Your task to perform on an android device: allow notifications from all sites in the chrome app Image 0: 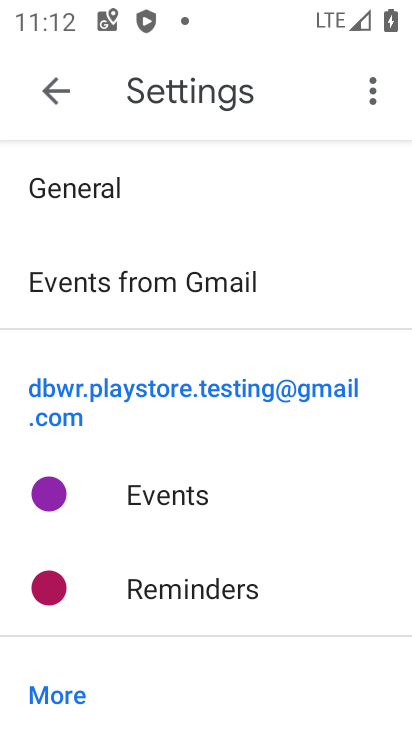
Step 0: press home button
Your task to perform on an android device: allow notifications from all sites in the chrome app Image 1: 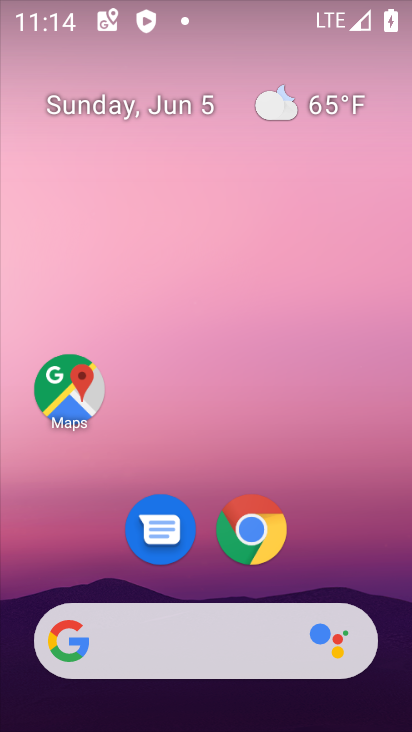
Step 1: drag from (259, 709) to (319, 56)
Your task to perform on an android device: allow notifications from all sites in the chrome app Image 2: 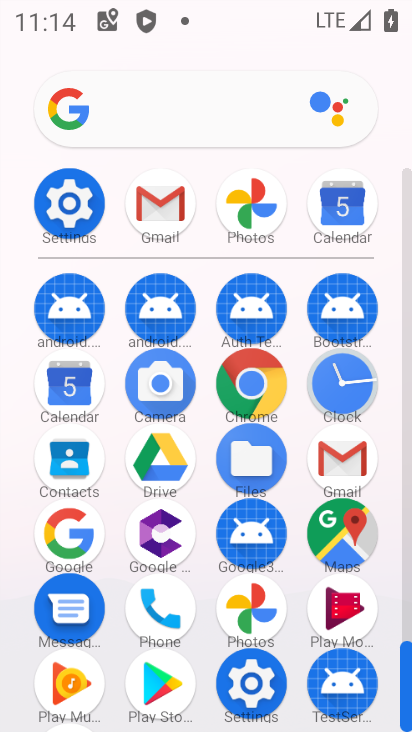
Step 2: click (255, 393)
Your task to perform on an android device: allow notifications from all sites in the chrome app Image 3: 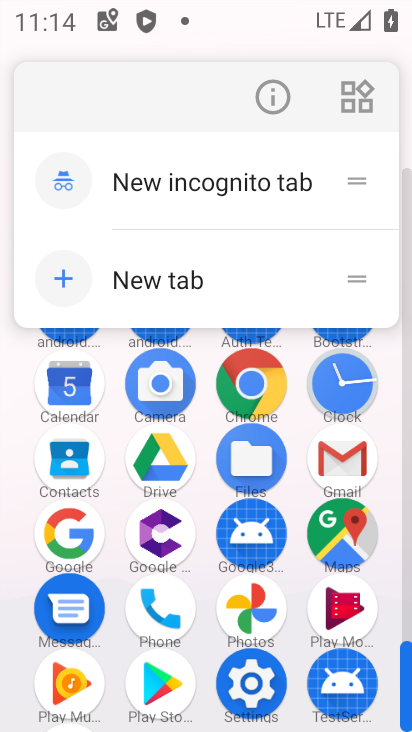
Step 3: click (273, 98)
Your task to perform on an android device: allow notifications from all sites in the chrome app Image 4: 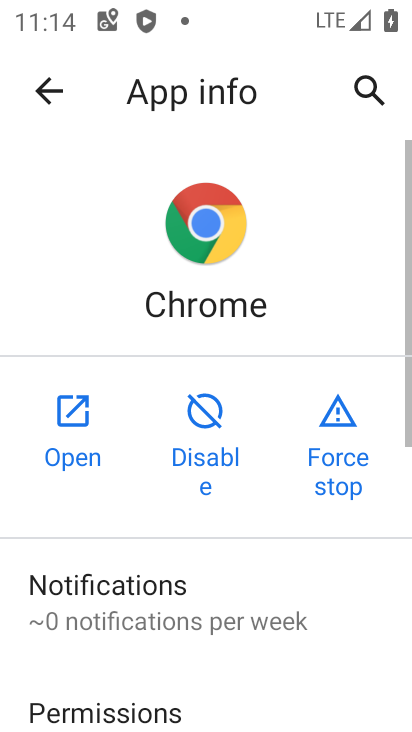
Step 4: drag from (290, 622) to (354, 303)
Your task to perform on an android device: allow notifications from all sites in the chrome app Image 5: 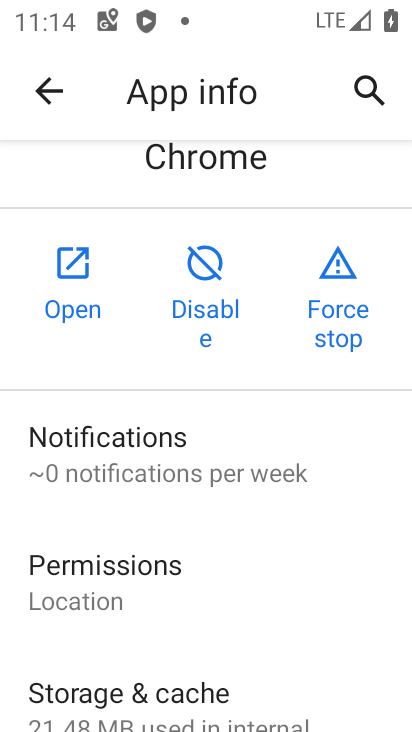
Step 5: click (275, 448)
Your task to perform on an android device: allow notifications from all sites in the chrome app Image 6: 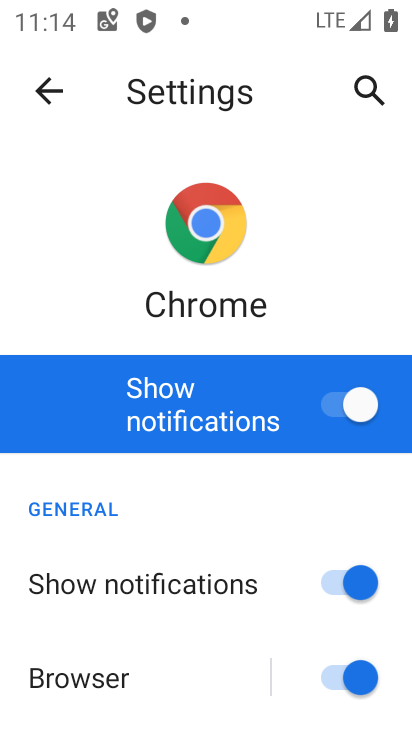
Step 6: task complete